Your task to perform on an android device: toggle javascript in the chrome app Image 0: 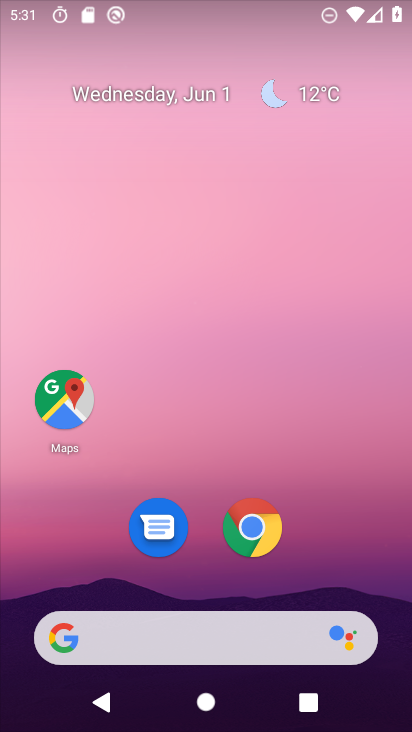
Step 0: click (250, 524)
Your task to perform on an android device: toggle javascript in the chrome app Image 1: 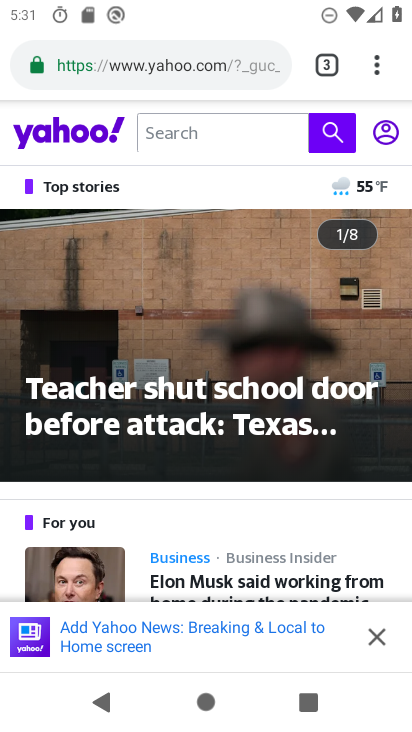
Step 1: click (383, 70)
Your task to perform on an android device: toggle javascript in the chrome app Image 2: 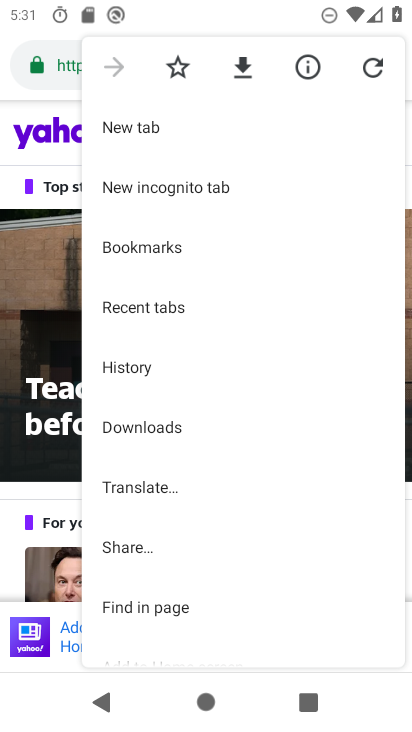
Step 2: drag from (95, 639) to (149, 155)
Your task to perform on an android device: toggle javascript in the chrome app Image 3: 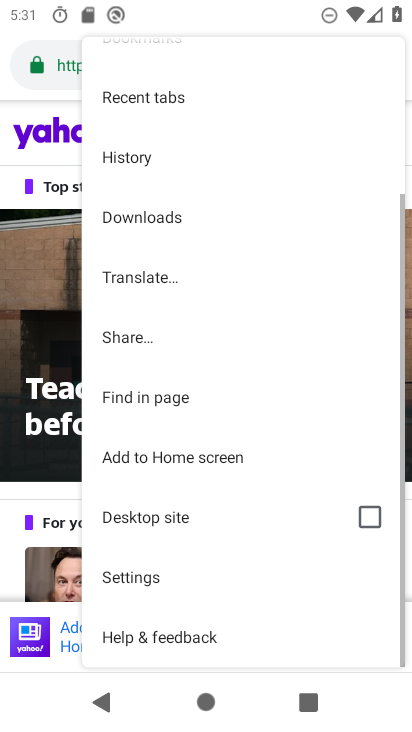
Step 3: click (163, 595)
Your task to perform on an android device: toggle javascript in the chrome app Image 4: 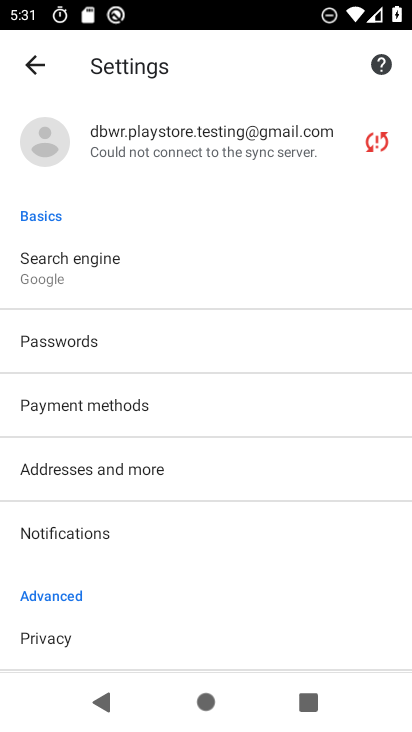
Step 4: drag from (163, 595) to (188, 158)
Your task to perform on an android device: toggle javascript in the chrome app Image 5: 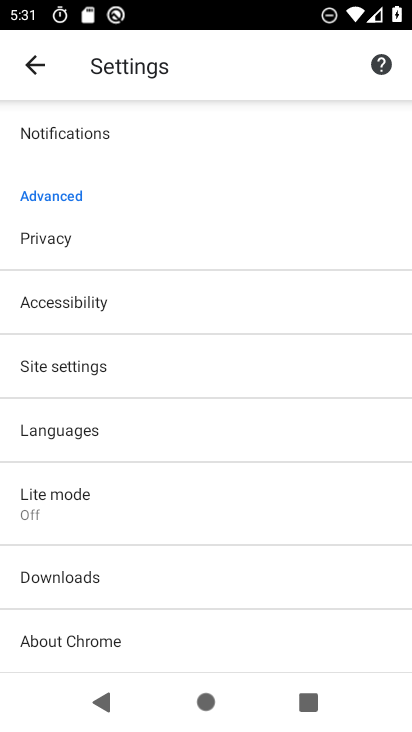
Step 5: click (84, 382)
Your task to perform on an android device: toggle javascript in the chrome app Image 6: 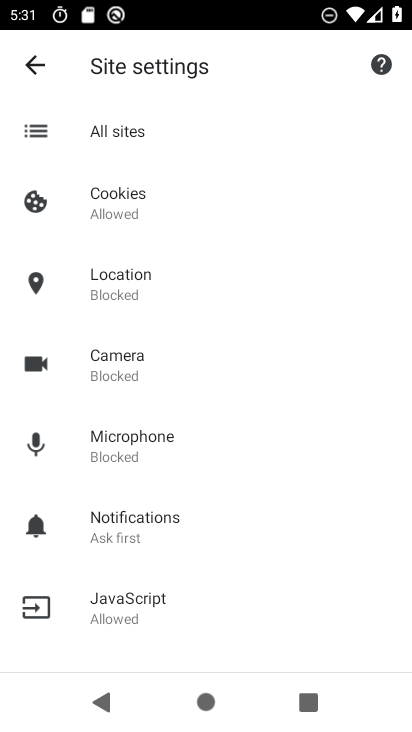
Step 6: click (96, 604)
Your task to perform on an android device: toggle javascript in the chrome app Image 7: 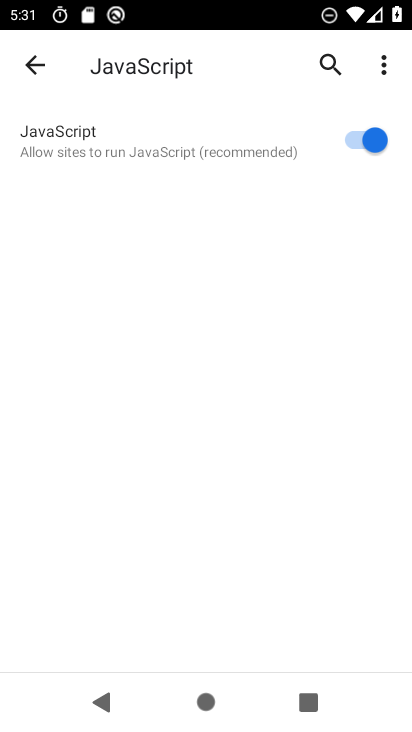
Step 7: click (367, 126)
Your task to perform on an android device: toggle javascript in the chrome app Image 8: 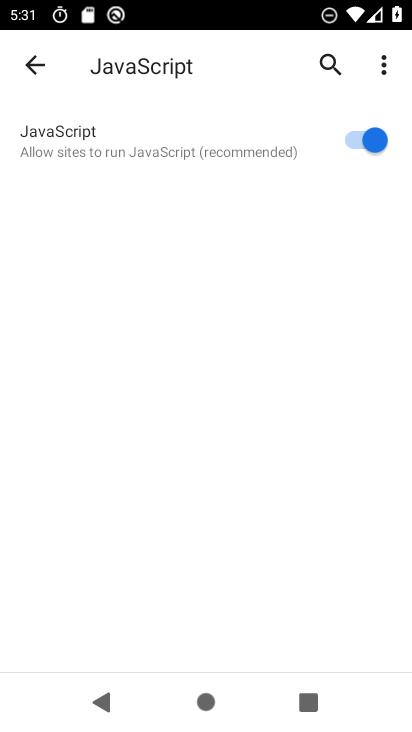
Step 8: click (367, 126)
Your task to perform on an android device: toggle javascript in the chrome app Image 9: 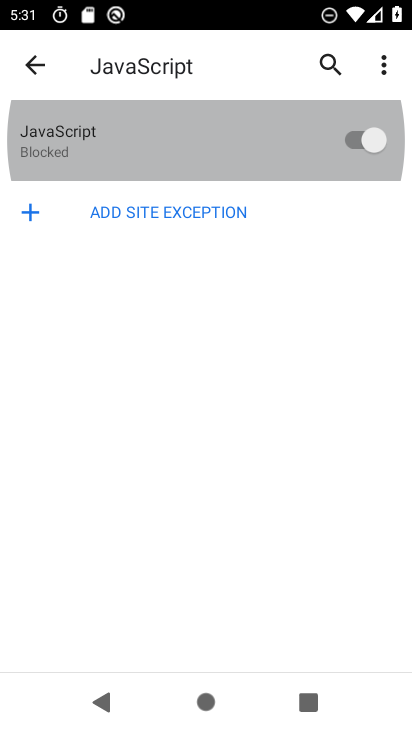
Step 9: click (367, 126)
Your task to perform on an android device: toggle javascript in the chrome app Image 10: 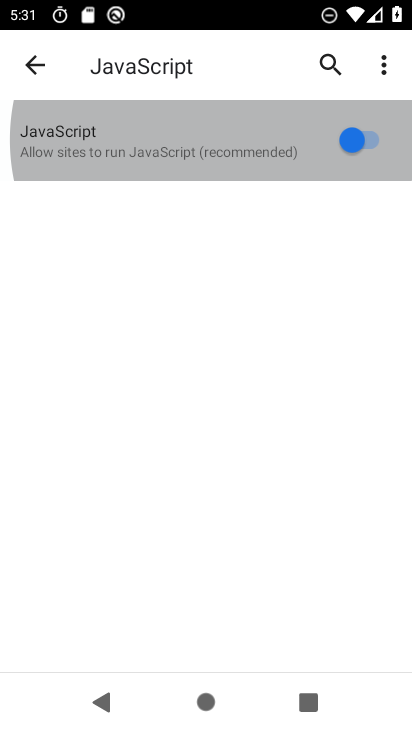
Step 10: click (367, 126)
Your task to perform on an android device: toggle javascript in the chrome app Image 11: 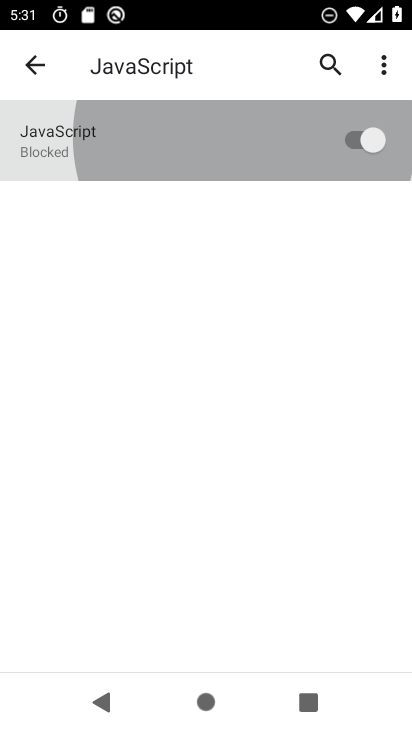
Step 11: click (367, 126)
Your task to perform on an android device: toggle javascript in the chrome app Image 12: 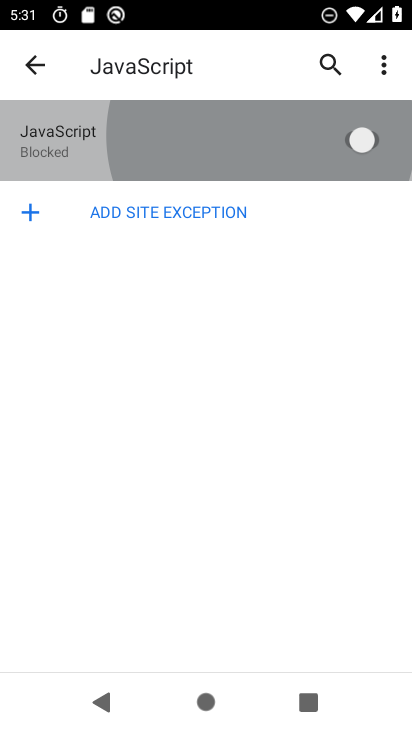
Step 12: click (367, 126)
Your task to perform on an android device: toggle javascript in the chrome app Image 13: 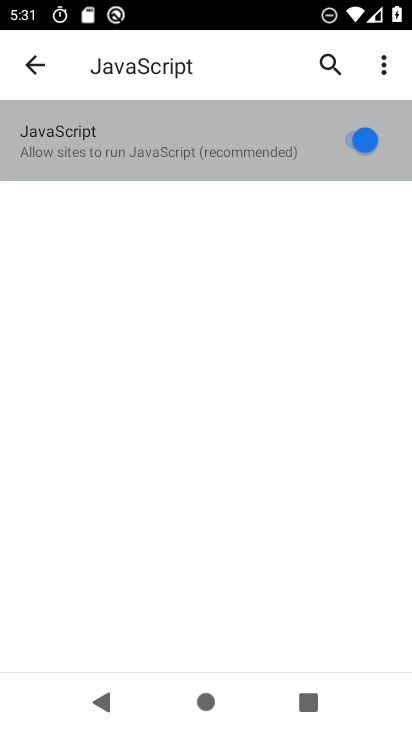
Step 13: click (367, 126)
Your task to perform on an android device: toggle javascript in the chrome app Image 14: 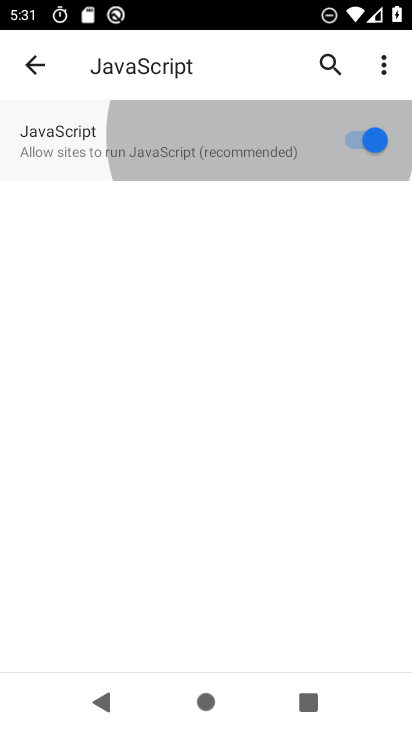
Step 14: click (367, 126)
Your task to perform on an android device: toggle javascript in the chrome app Image 15: 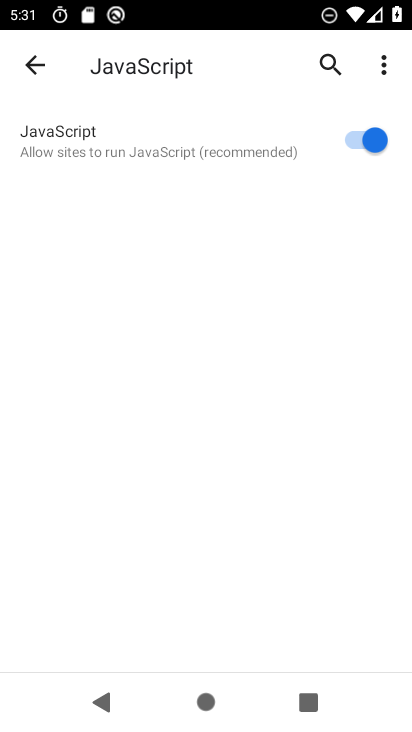
Step 15: task complete